Your task to perform on an android device: Open eBay Image 0: 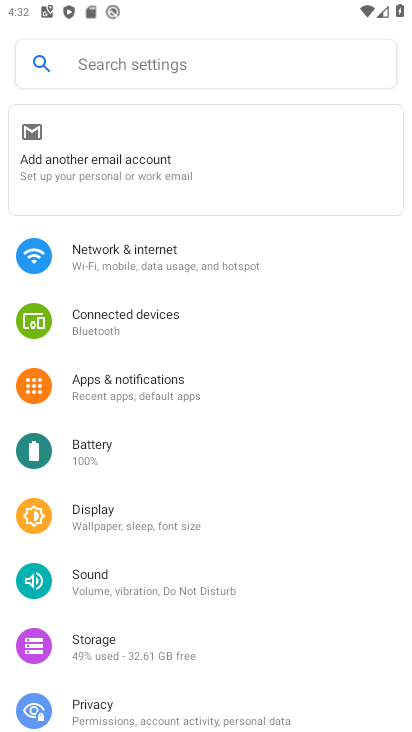
Step 0: press home button
Your task to perform on an android device: Open eBay Image 1: 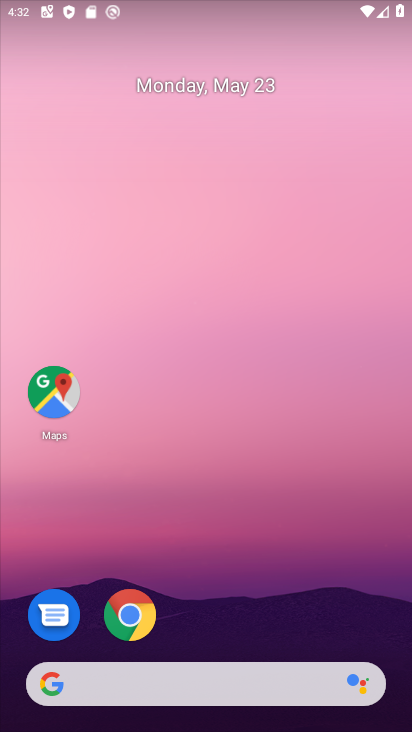
Step 1: click (135, 616)
Your task to perform on an android device: Open eBay Image 2: 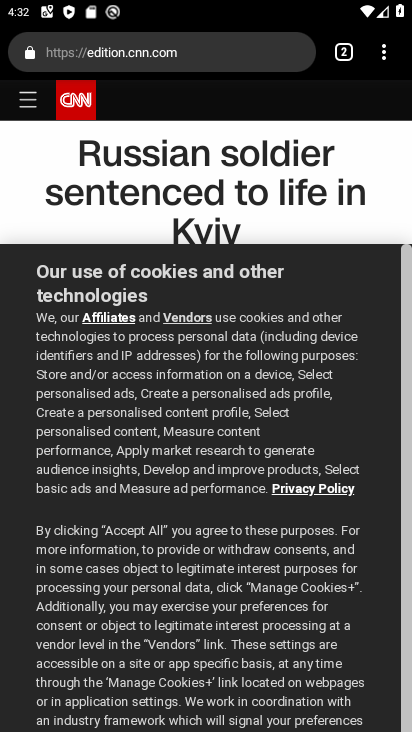
Step 2: click (332, 49)
Your task to perform on an android device: Open eBay Image 3: 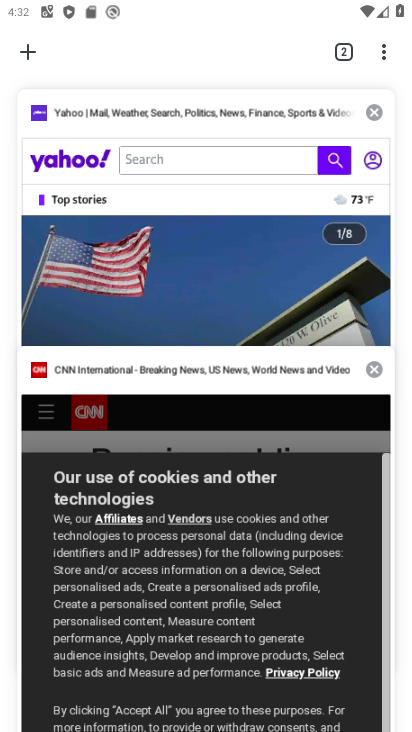
Step 3: click (35, 55)
Your task to perform on an android device: Open eBay Image 4: 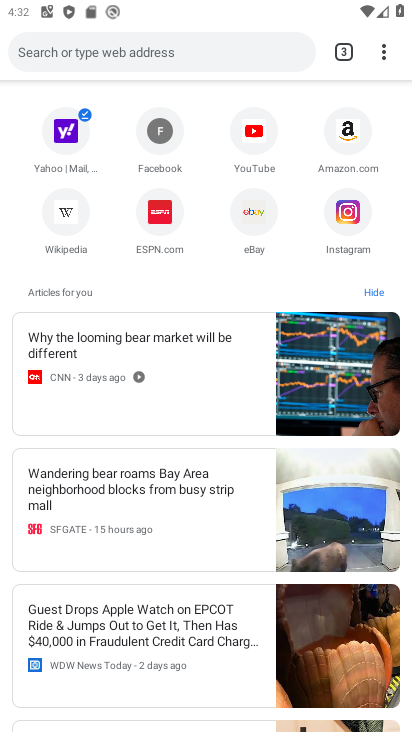
Step 4: click (240, 211)
Your task to perform on an android device: Open eBay Image 5: 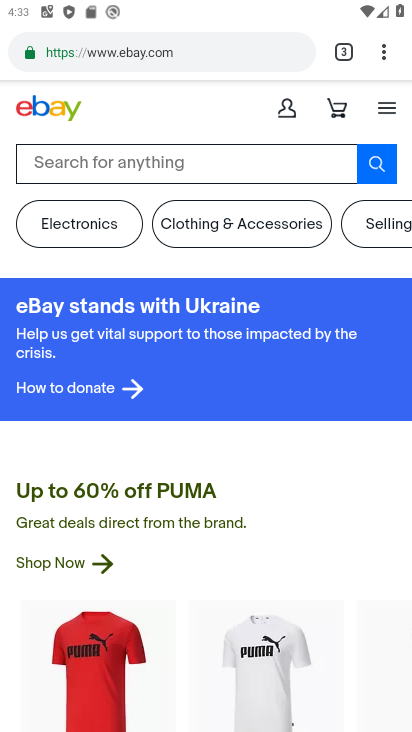
Step 5: task complete